Your task to perform on an android device: Open sound settings Image 0: 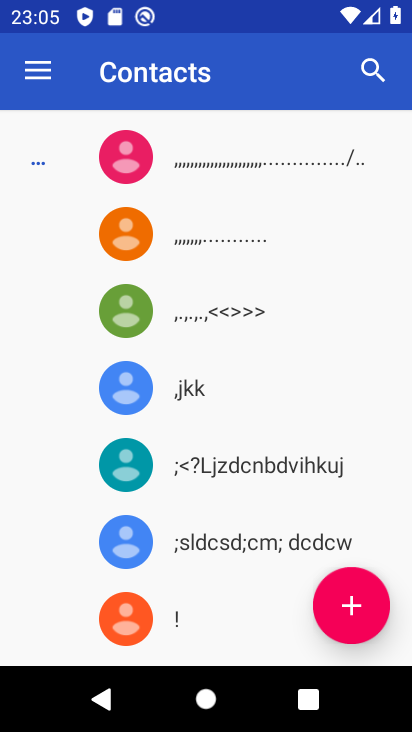
Step 0: press home button
Your task to perform on an android device: Open sound settings Image 1: 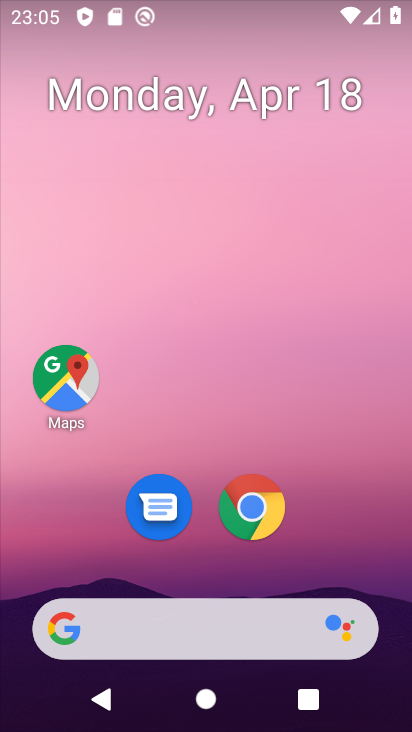
Step 1: drag from (315, 496) to (376, 87)
Your task to perform on an android device: Open sound settings Image 2: 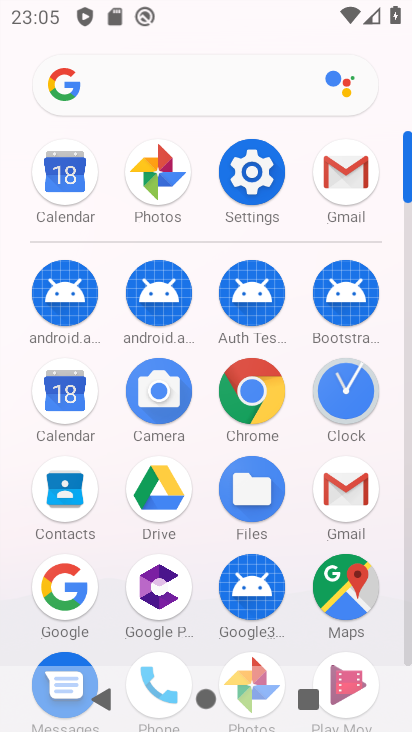
Step 2: click (256, 176)
Your task to perform on an android device: Open sound settings Image 3: 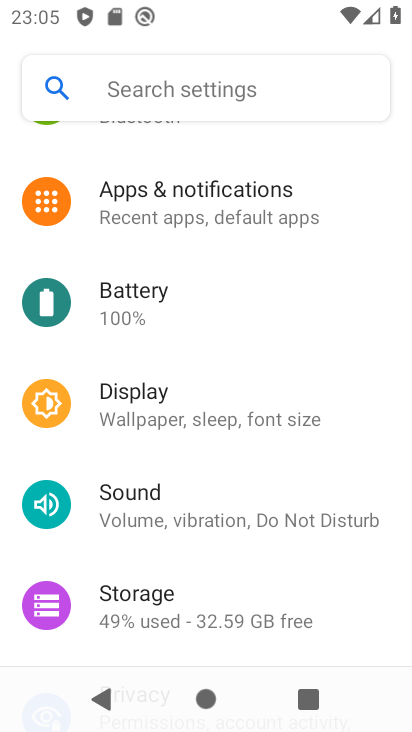
Step 3: click (240, 504)
Your task to perform on an android device: Open sound settings Image 4: 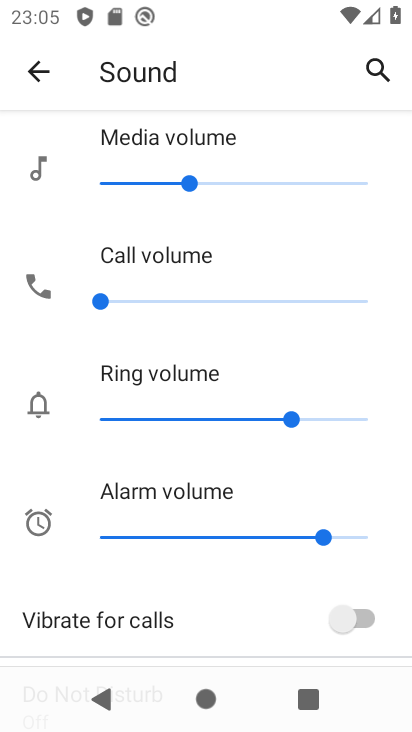
Step 4: task complete